Your task to perform on an android device: change the clock display to show seconds Image 0: 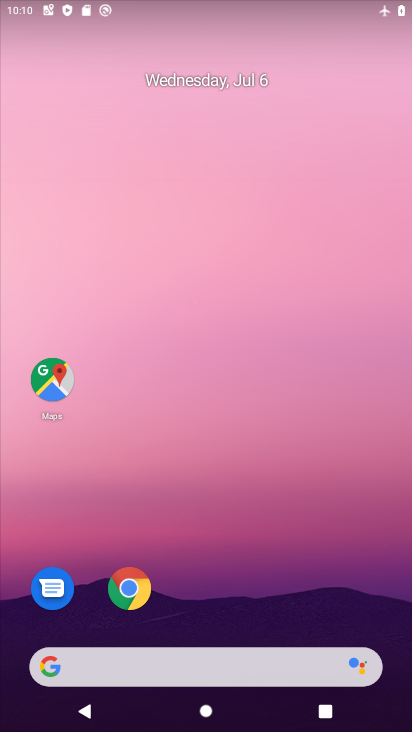
Step 0: drag from (213, 566) to (225, 203)
Your task to perform on an android device: change the clock display to show seconds Image 1: 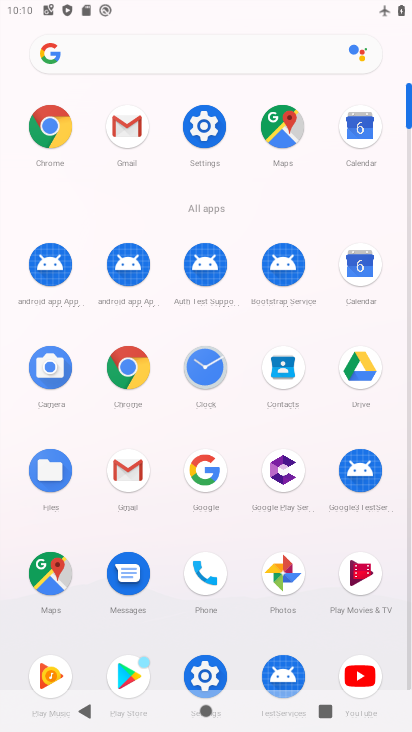
Step 1: click (215, 352)
Your task to perform on an android device: change the clock display to show seconds Image 2: 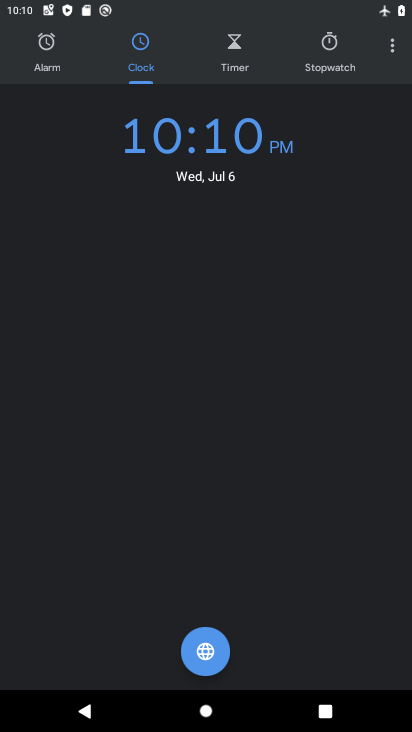
Step 2: click (390, 31)
Your task to perform on an android device: change the clock display to show seconds Image 3: 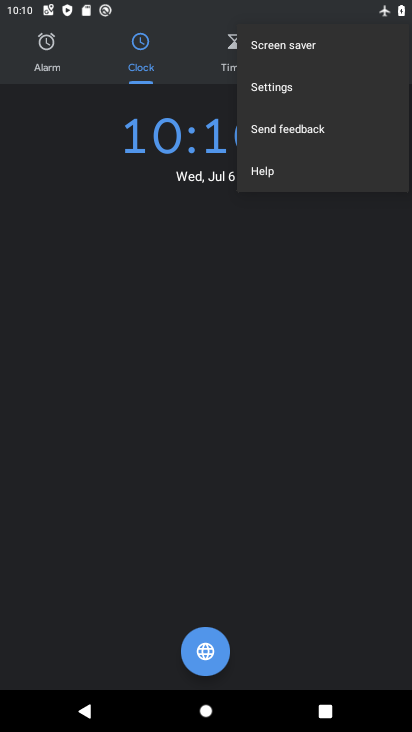
Step 3: click (309, 88)
Your task to perform on an android device: change the clock display to show seconds Image 4: 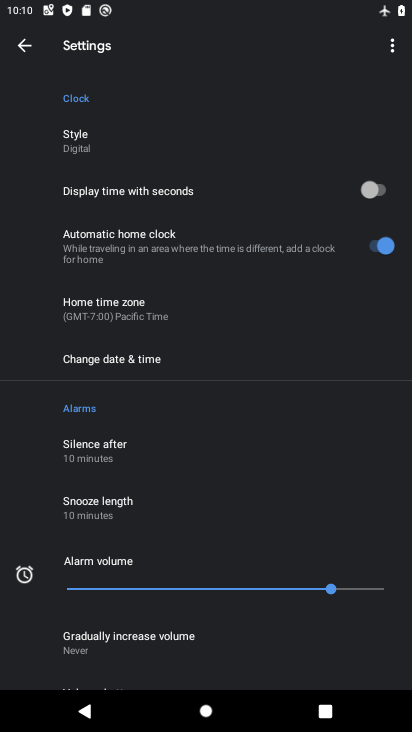
Step 4: click (376, 184)
Your task to perform on an android device: change the clock display to show seconds Image 5: 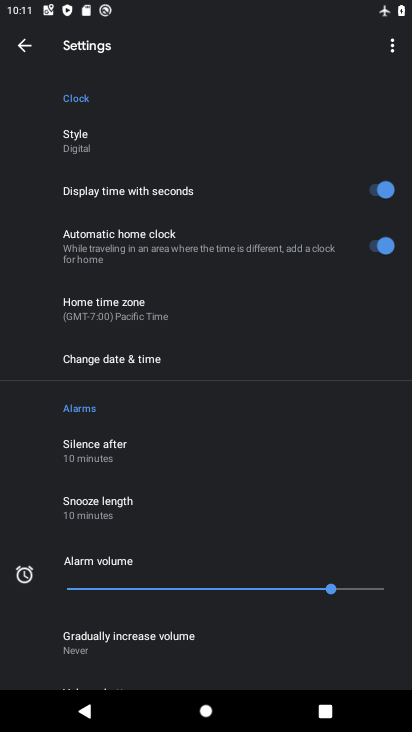
Step 5: task complete